Your task to perform on an android device: turn off smart reply in the gmail app Image 0: 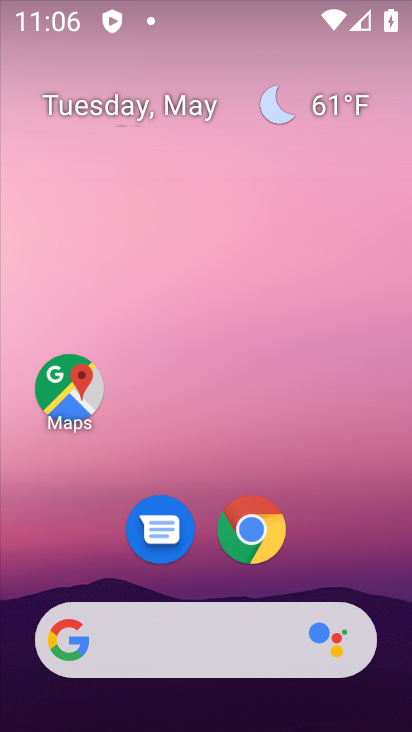
Step 0: drag from (327, 570) to (72, 67)
Your task to perform on an android device: turn off smart reply in the gmail app Image 1: 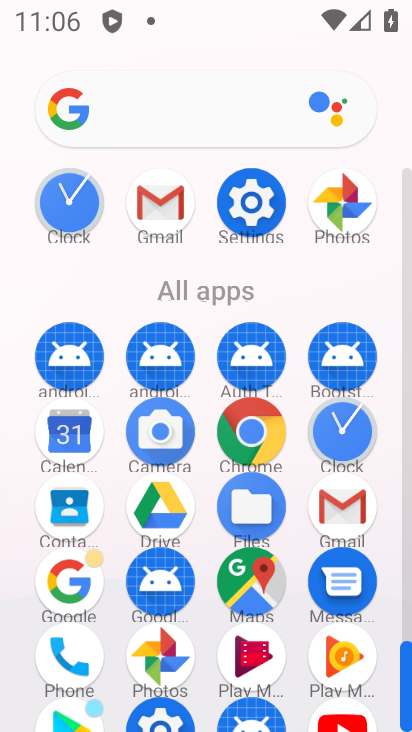
Step 1: click (164, 203)
Your task to perform on an android device: turn off smart reply in the gmail app Image 2: 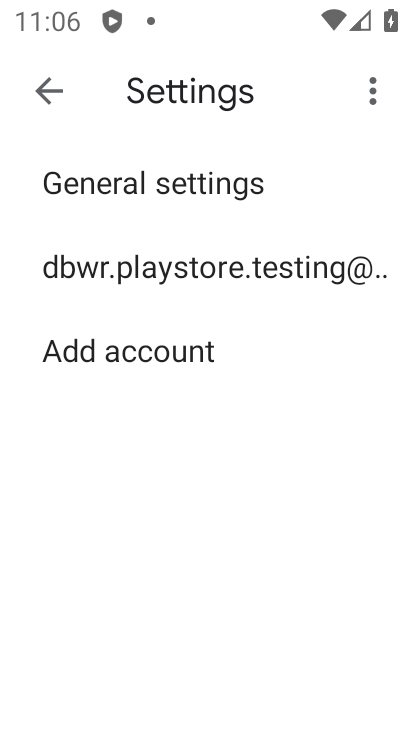
Step 2: click (163, 271)
Your task to perform on an android device: turn off smart reply in the gmail app Image 3: 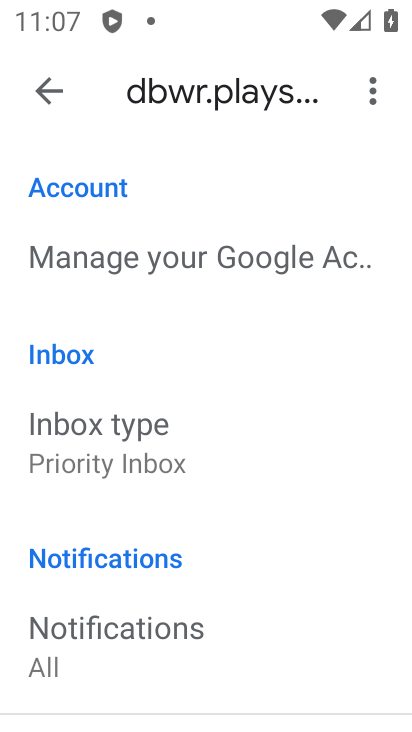
Step 3: drag from (196, 556) to (155, 84)
Your task to perform on an android device: turn off smart reply in the gmail app Image 4: 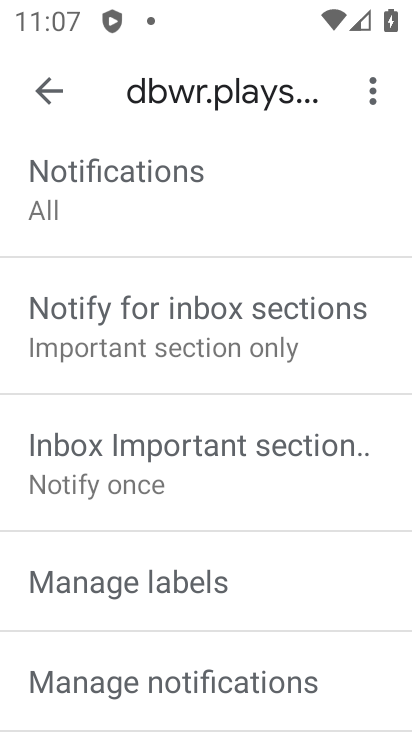
Step 4: drag from (168, 677) to (216, 98)
Your task to perform on an android device: turn off smart reply in the gmail app Image 5: 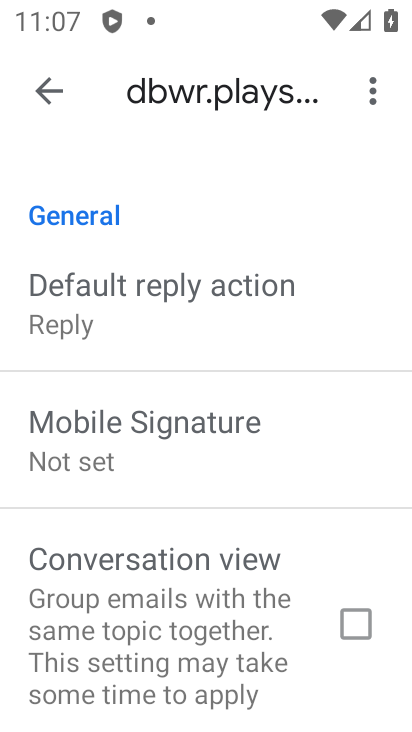
Step 5: drag from (176, 571) to (198, 140)
Your task to perform on an android device: turn off smart reply in the gmail app Image 6: 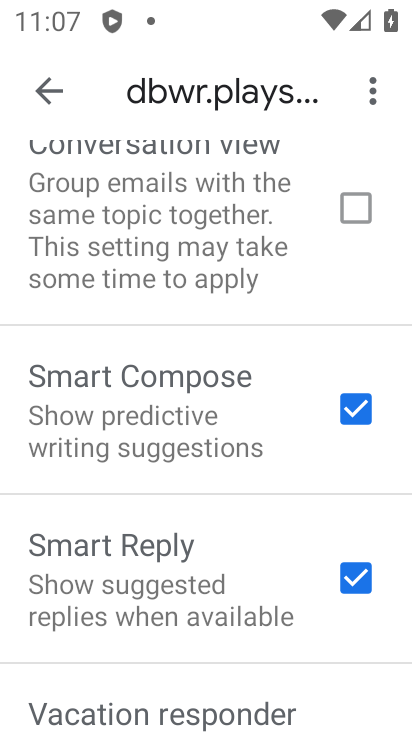
Step 6: click (366, 582)
Your task to perform on an android device: turn off smart reply in the gmail app Image 7: 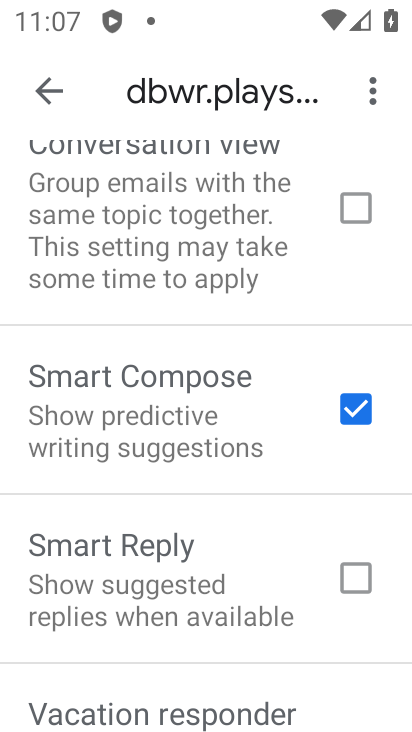
Step 7: task complete